Your task to perform on an android device: turn on location history Image 0: 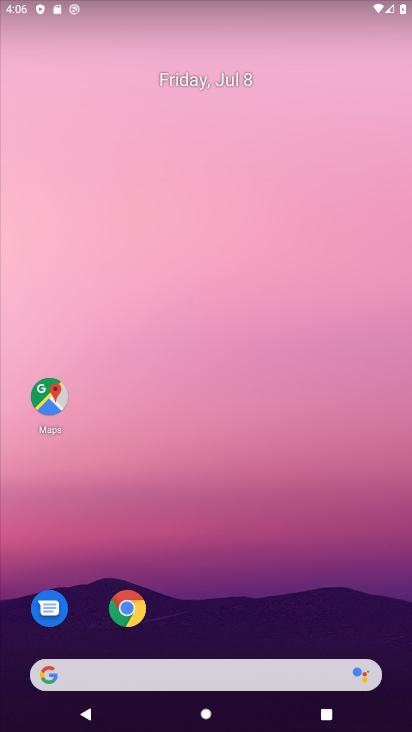
Step 0: press home button
Your task to perform on an android device: turn on location history Image 1: 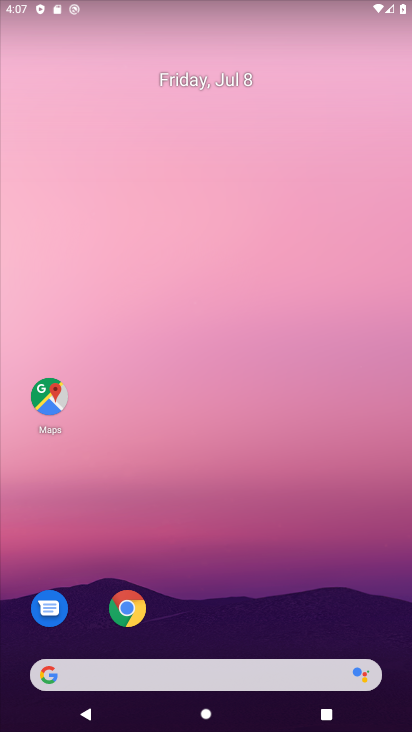
Step 1: drag from (245, 536) to (394, 209)
Your task to perform on an android device: turn on location history Image 2: 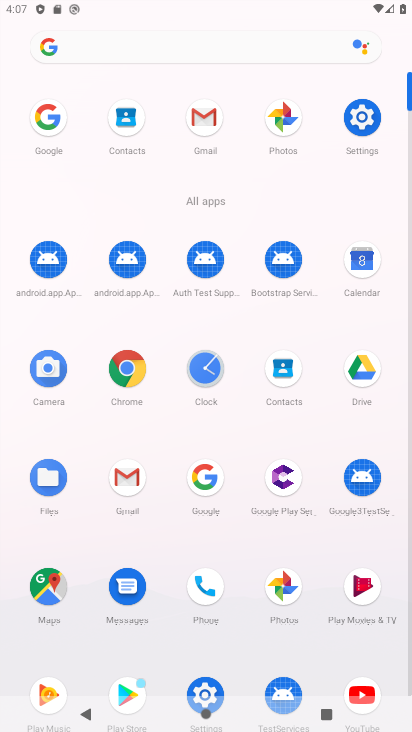
Step 2: click (364, 114)
Your task to perform on an android device: turn on location history Image 3: 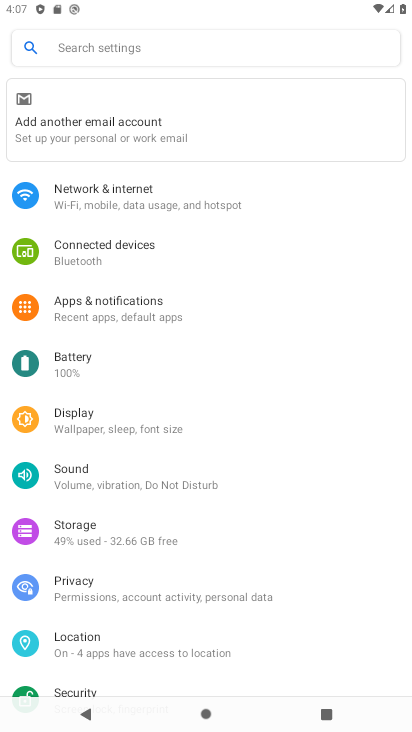
Step 3: click (87, 652)
Your task to perform on an android device: turn on location history Image 4: 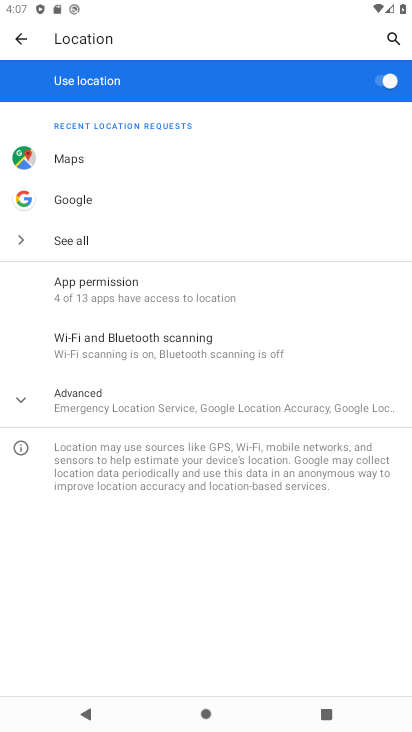
Step 4: click (21, 398)
Your task to perform on an android device: turn on location history Image 5: 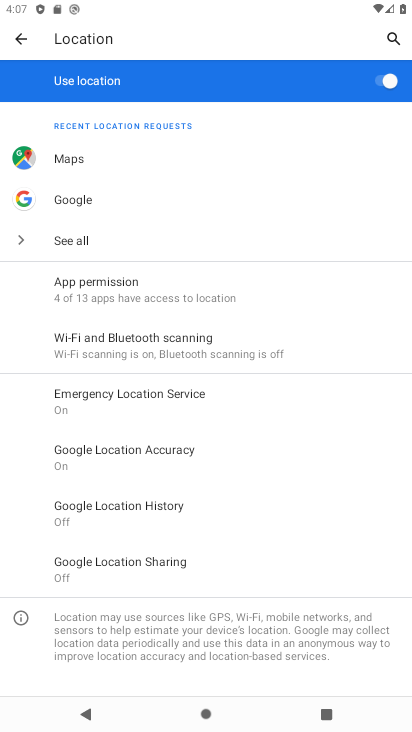
Step 5: click (154, 502)
Your task to perform on an android device: turn on location history Image 6: 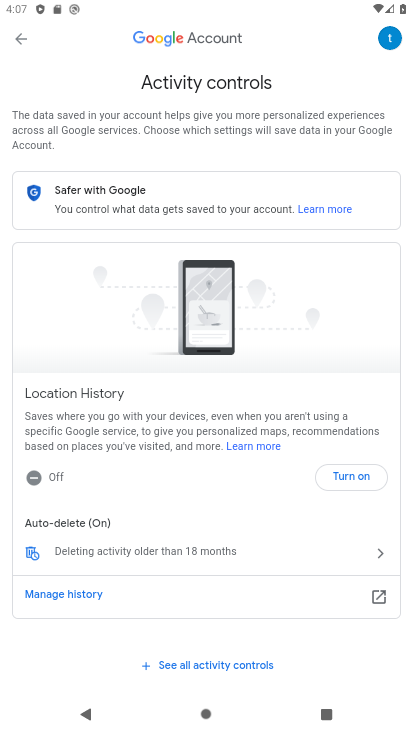
Step 6: click (327, 479)
Your task to perform on an android device: turn on location history Image 7: 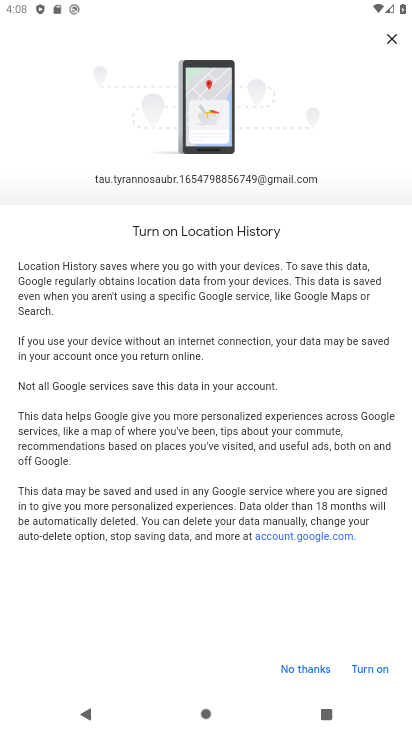
Step 7: click (362, 672)
Your task to perform on an android device: turn on location history Image 8: 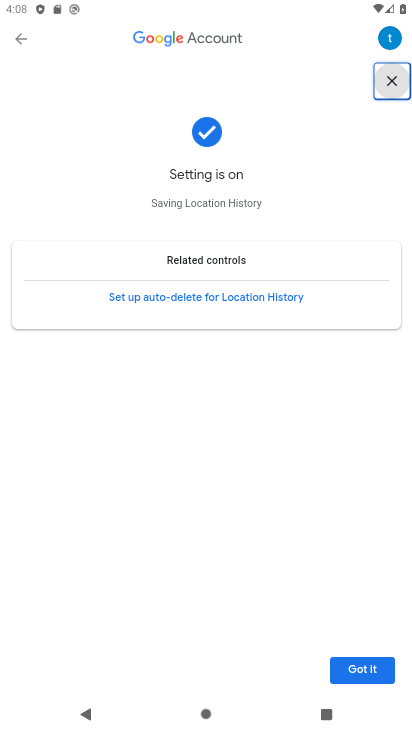
Step 8: click (374, 670)
Your task to perform on an android device: turn on location history Image 9: 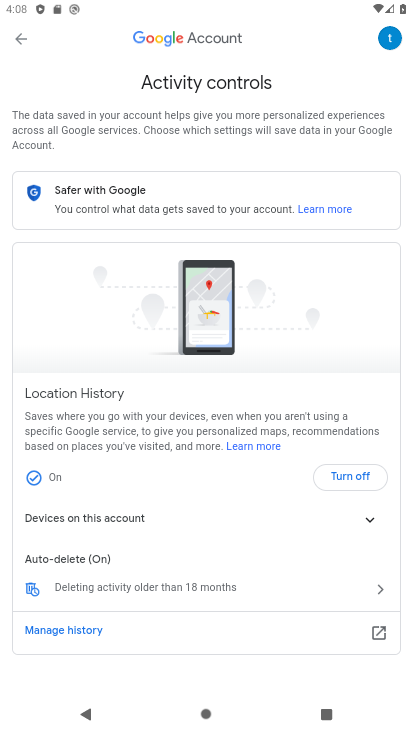
Step 9: task complete